Your task to perform on an android device: open app "Pinterest" Image 0: 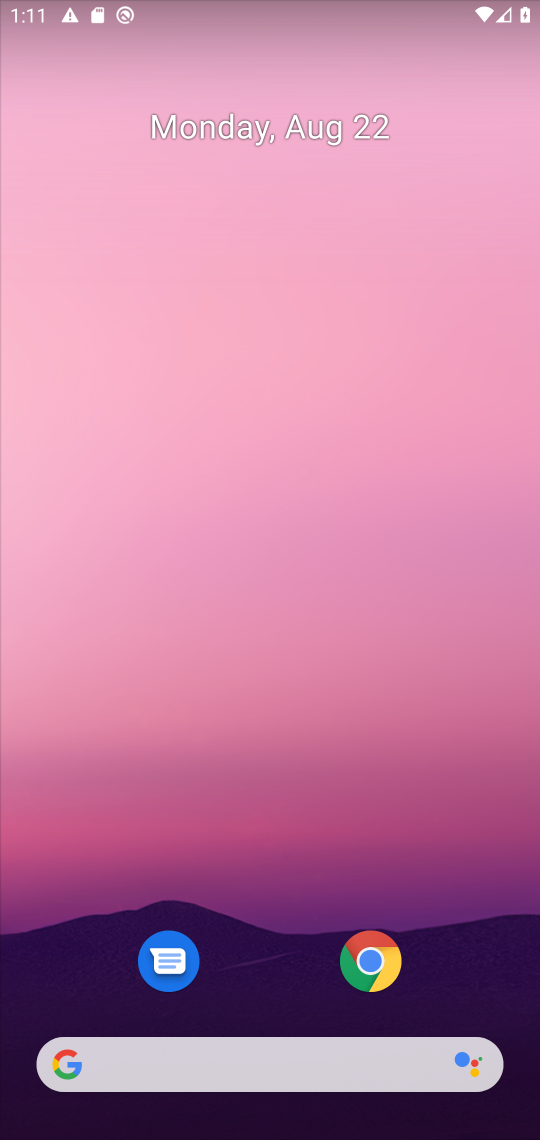
Step 0: press home button
Your task to perform on an android device: open app "Pinterest" Image 1: 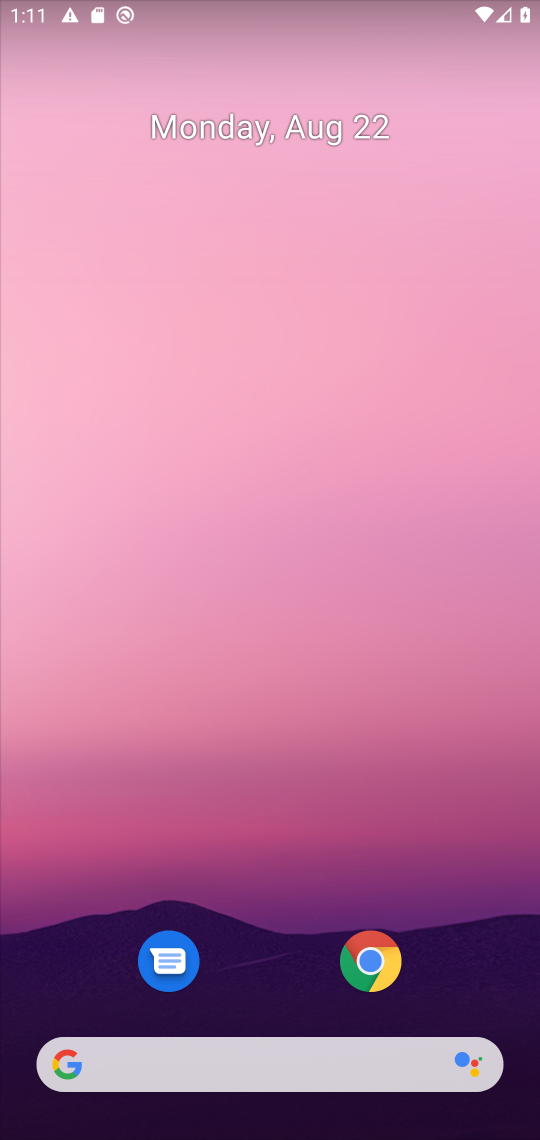
Step 1: drag from (470, 980) to (376, 31)
Your task to perform on an android device: open app "Pinterest" Image 2: 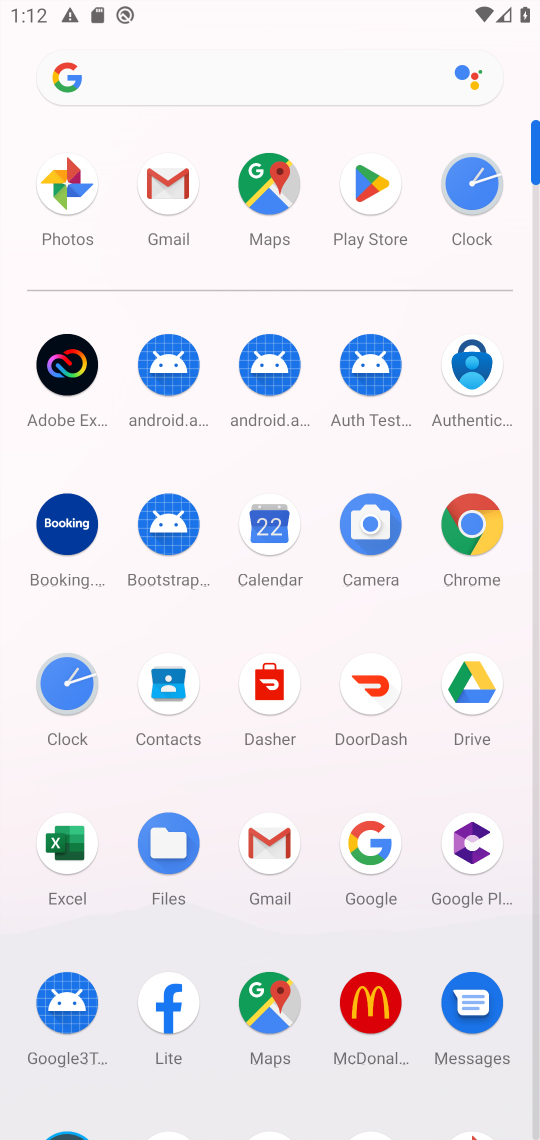
Step 2: click (366, 176)
Your task to perform on an android device: open app "Pinterest" Image 3: 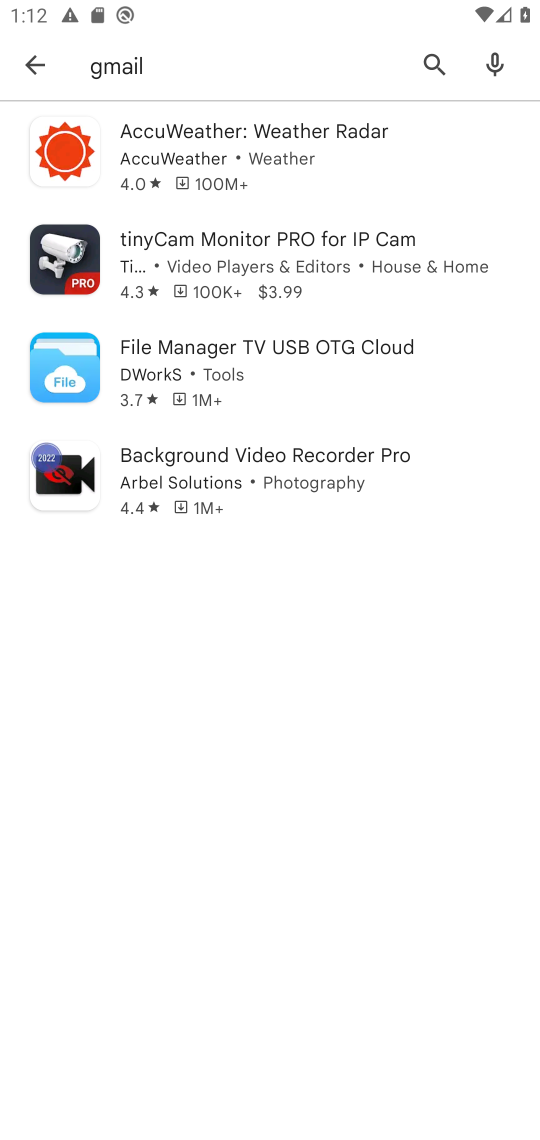
Step 3: press back button
Your task to perform on an android device: open app "Pinterest" Image 4: 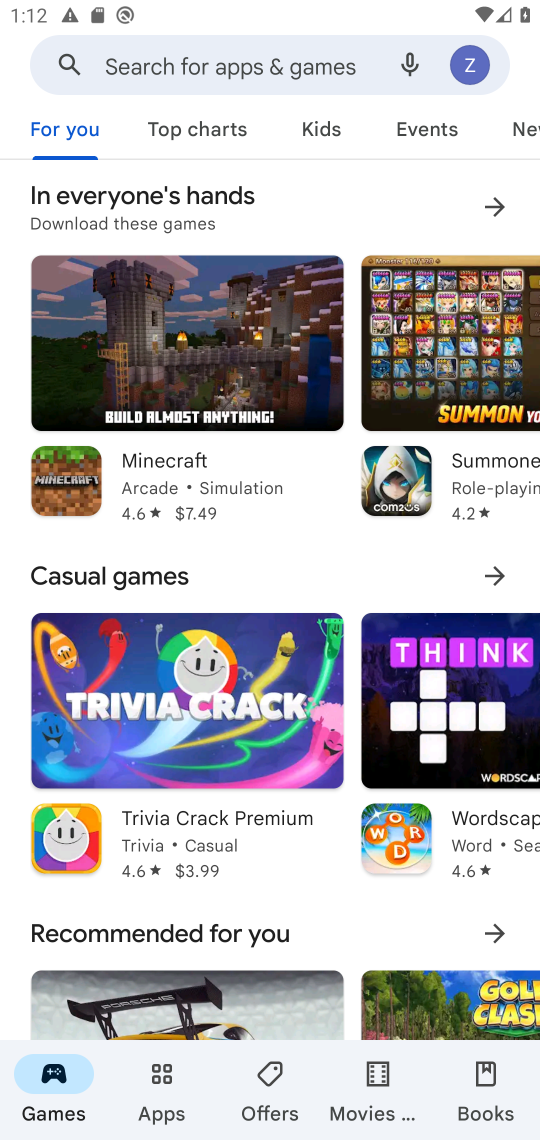
Step 4: click (270, 70)
Your task to perform on an android device: open app "Pinterest" Image 5: 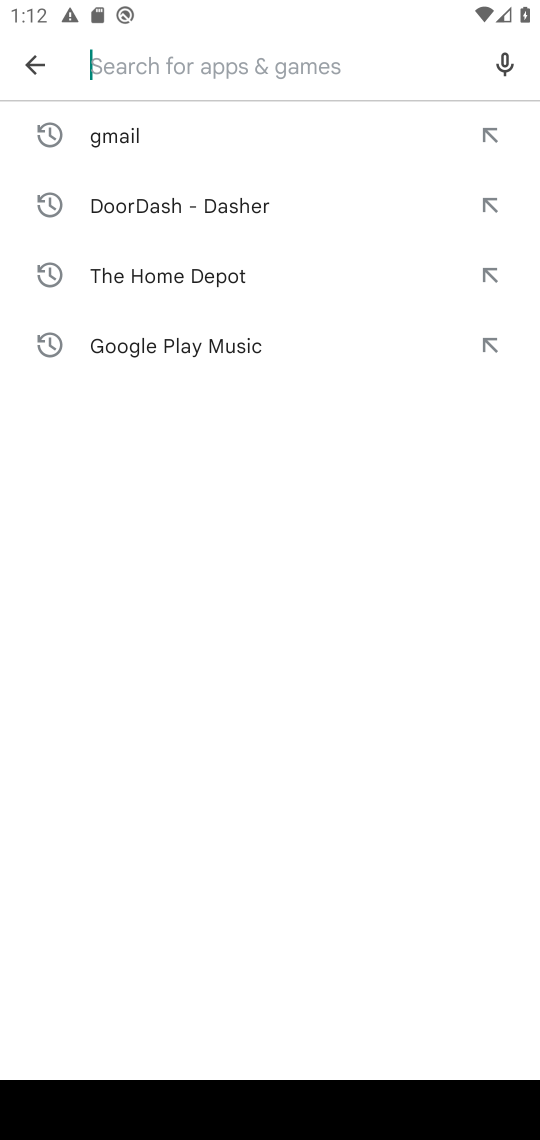
Step 5: type "Pinterest"
Your task to perform on an android device: open app "Pinterest" Image 6: 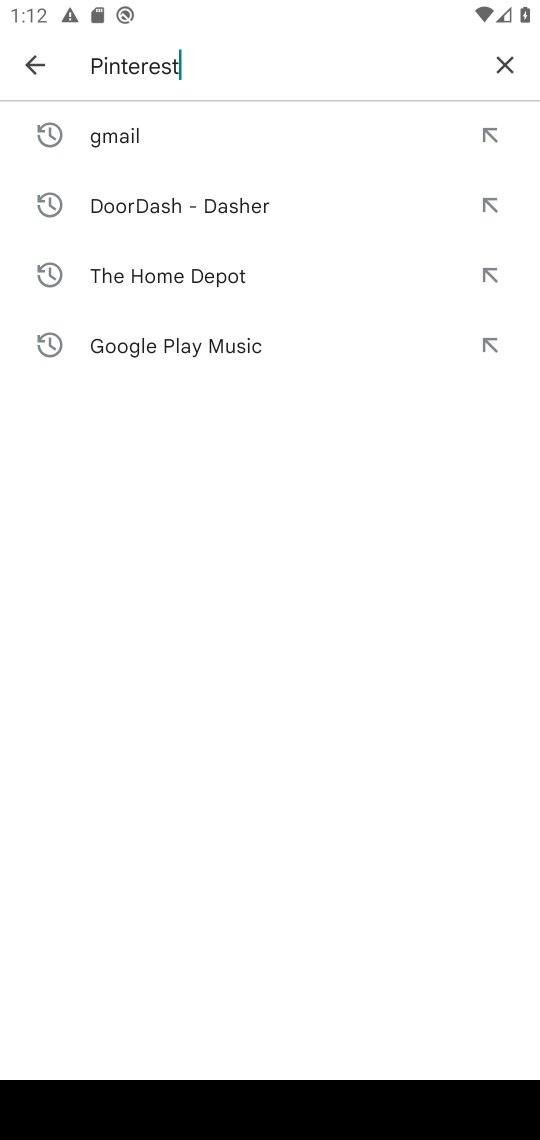
Step 6: press enter
Your task to perform on an android device: open app "Pinterest" Image 7: 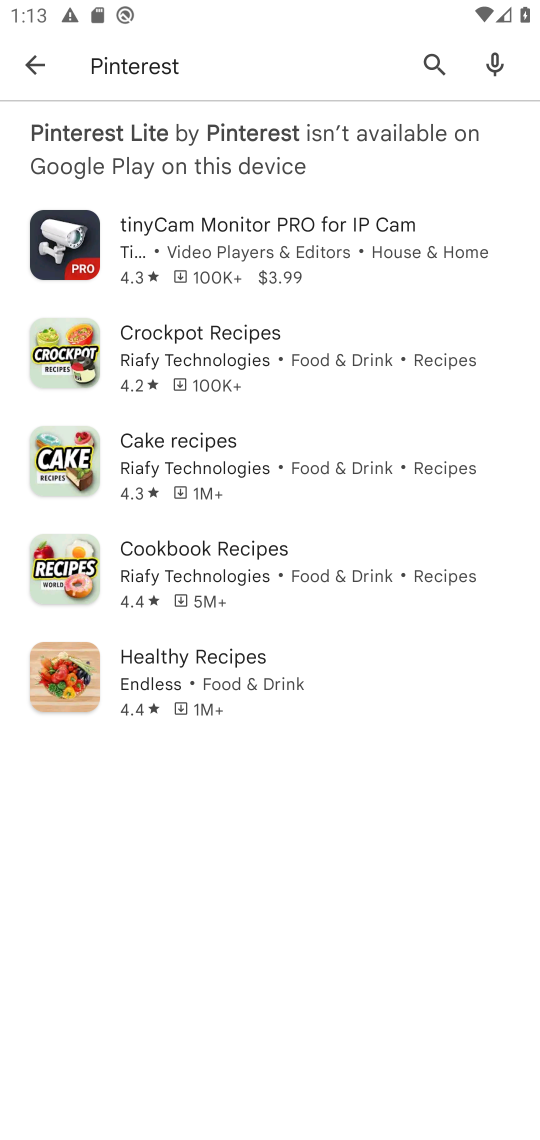
Step 7: task complete